Your task to perform on an android device: add a contact in the contacts app Image 0: 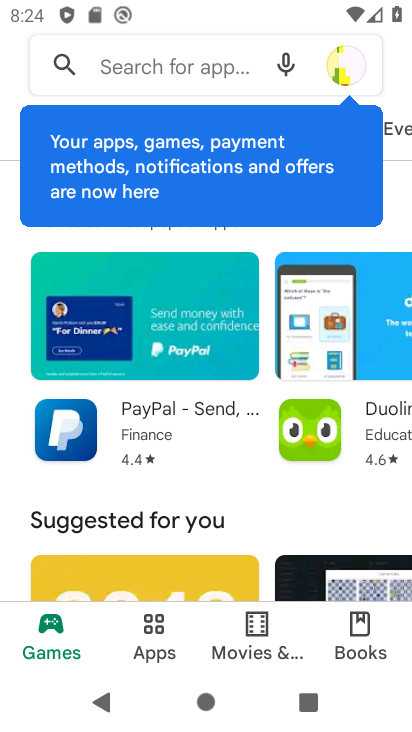
Step 0: press home button
Your task to perform on an android device: add a contact in the contacts app Image 1: 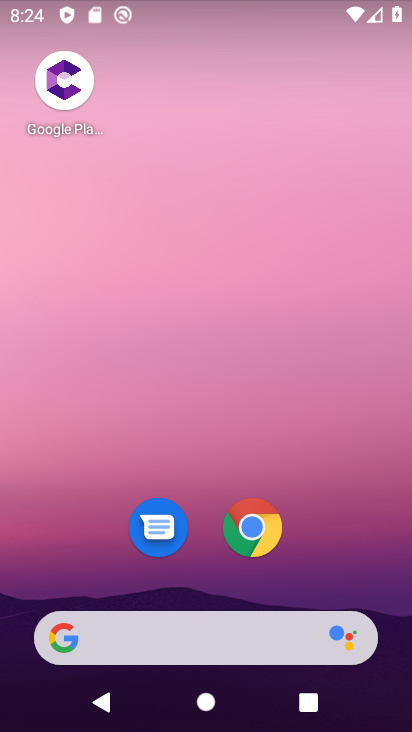
Step 1: drag from (99, 566) to (158, 110)
Your task to perform on an android device: add a contact in the contacts app Image 2: 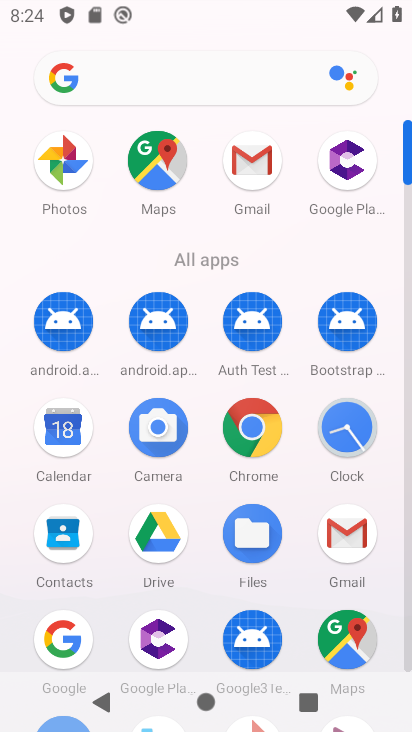
Step 2: click (57, 527)
Your task to perform on an android device: add a contact in the contacts app Image 3: 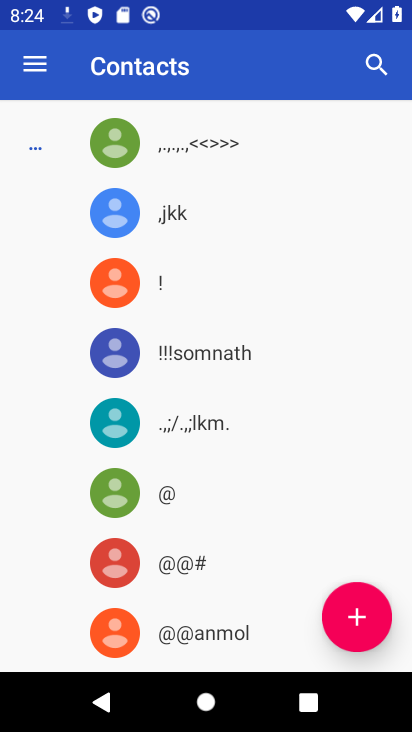
Step 3: click (359, 616)
Your task to perform on an android device: add a contact in the contacts app Image 4: 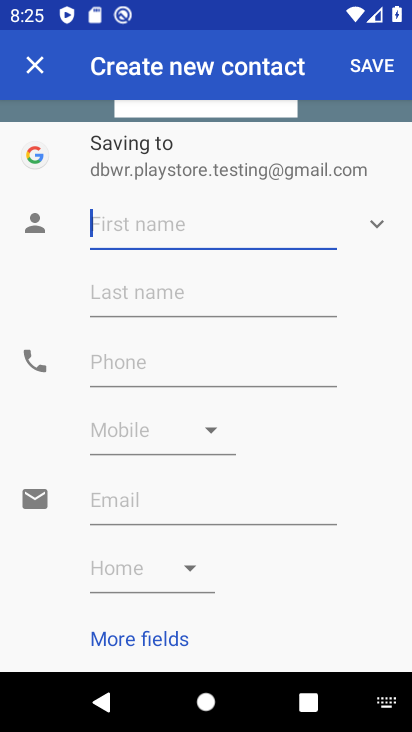
Step 4: type "boi"
Your task to perform on an android device: add a contact in the contacts app Image 5: 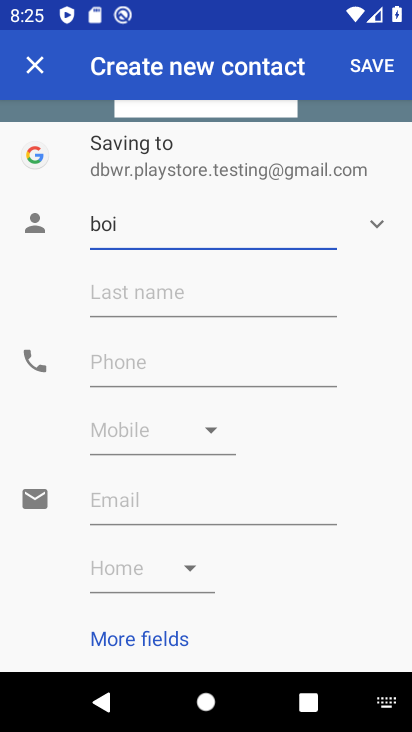
Step 5: click (199, 345)
Your task to perform on an android device: add a contact in the contacts app Image 6: 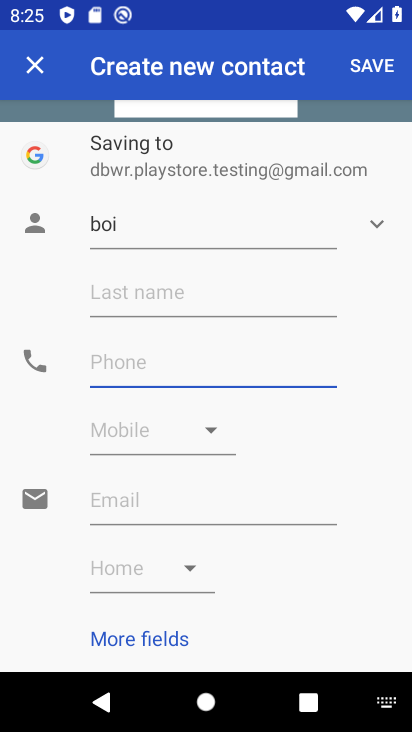
Step 6: type "4567890"
Your task to perform on an android device: add a contact in the contacts app Image 7: 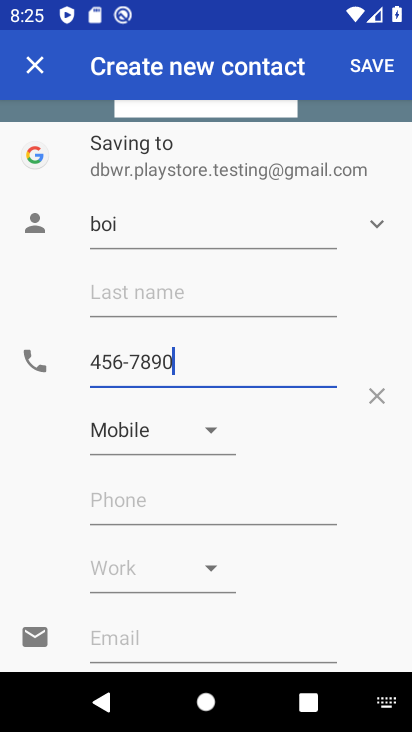
Step 7: click (378, 76)
Your task to perform on an android device: add a contact in the contacts app Image 8: 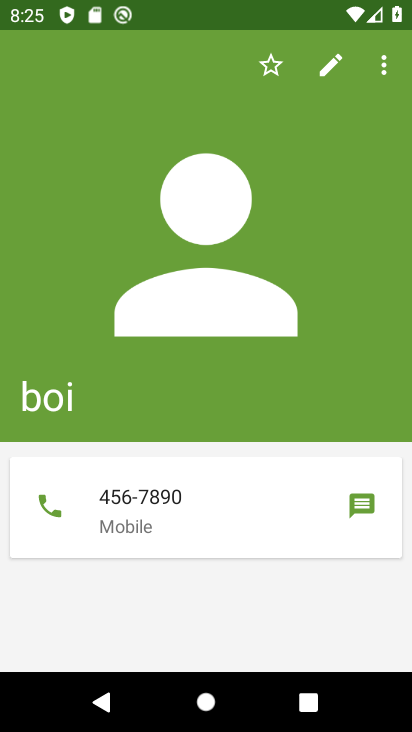
Step 8: task complete